Your task to perform on an android device: find snoozed emails in the gmail app Image 0: 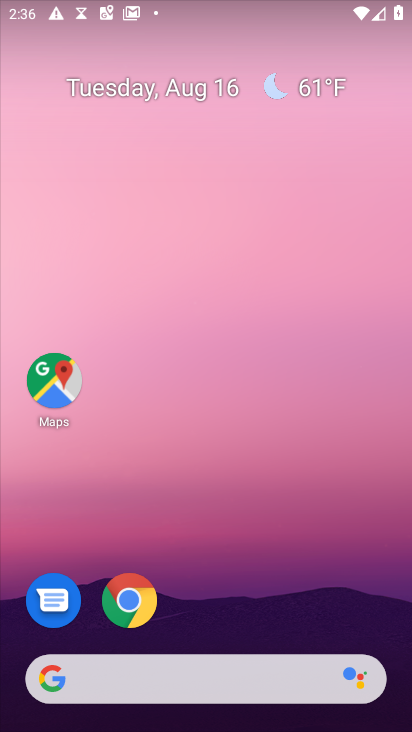
Step 0: drag from (240, 659) to (233, 61)
Your task to perform on an android device: find snoozed emails in the gmail app Image 1: 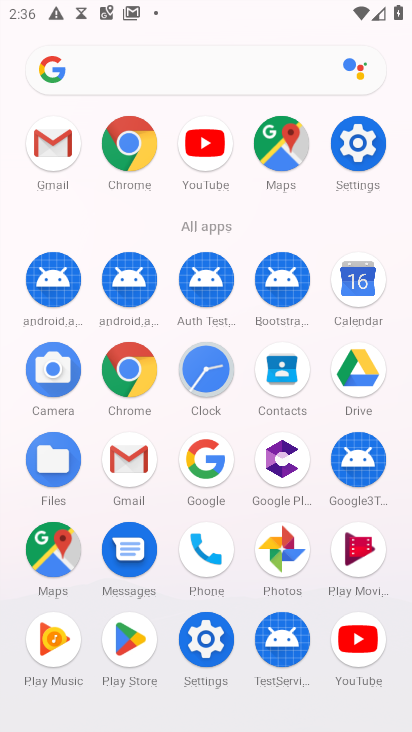
Step 1: click (55, 162)
Your task to perform on an android device: find snoozed emails in the gmail app Image 2: 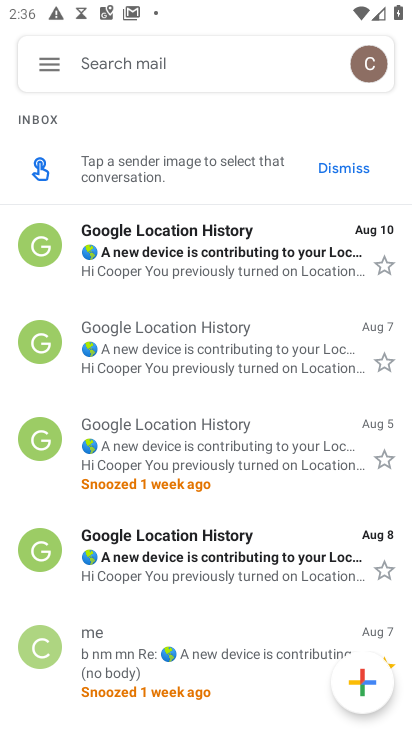
Step 2: click (60, 62)
Your task to perform on an android device: find snoozed emails in the gmail app Image 3: 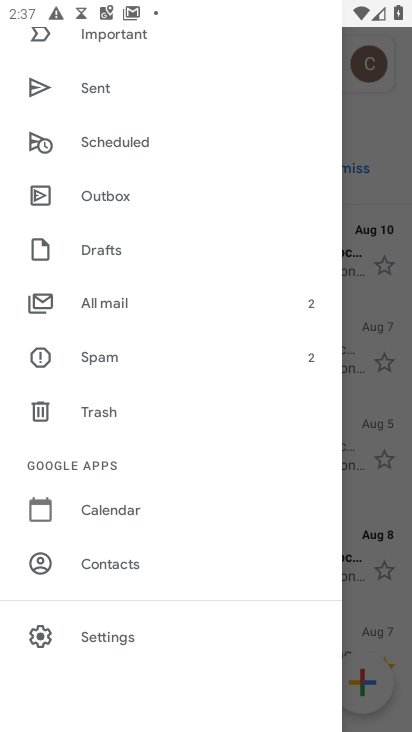
Step 3: drag from (106, 112) to (136, 527)
Your task to perform on an android device: find snoozed emails in the gmail app Image 4: 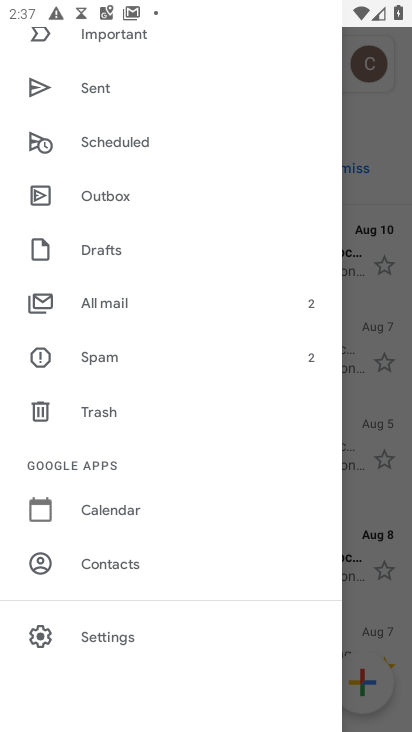
Step 4: drag from (128, 178) to (154, 511)
Your task to perform on an android device: find snoozed emails in the gmail app Image 5: 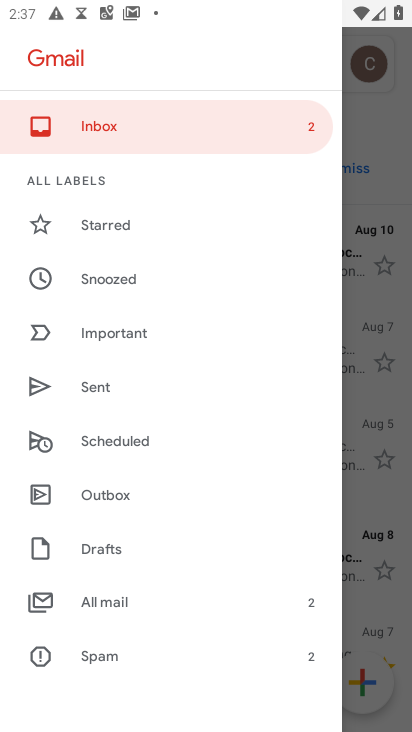
Step 5: click (123, 291)
Your task to perform on an android device: find snoozed emails in the gmail app Image 6: 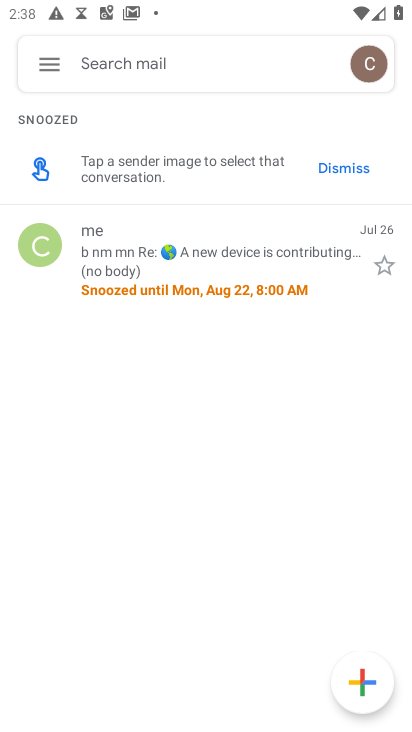
Step 6: task complete